Your task to perform on an android device: Open Android settings Image 0: 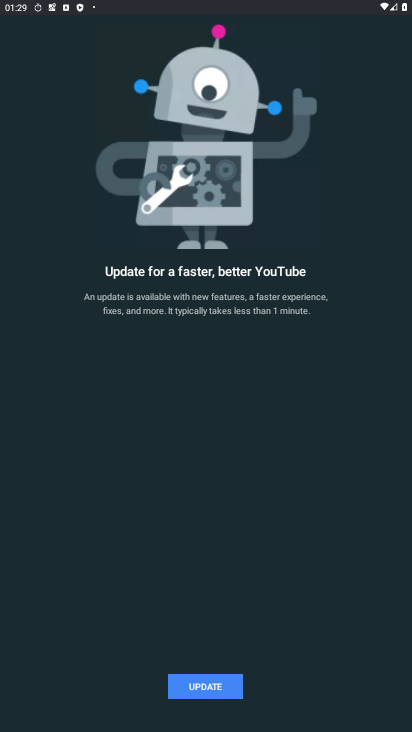
Step 0: press home button
Your task to perform on an android device: Open Android settings Image 1: 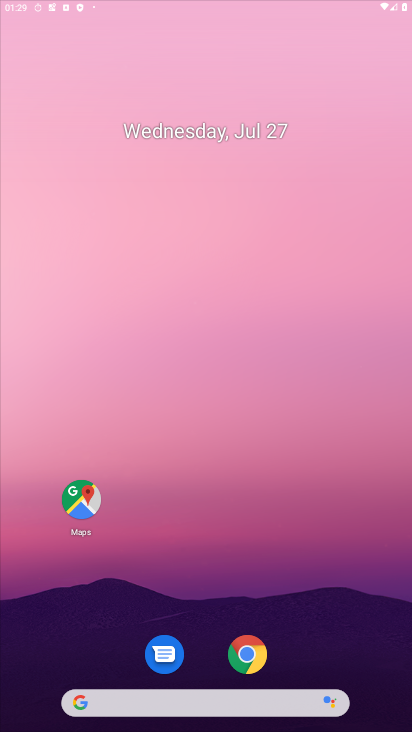
Step 1: drag from (238, 698) to (409, 556)
Your task to perform on an android device: Open Android settings Image 2: 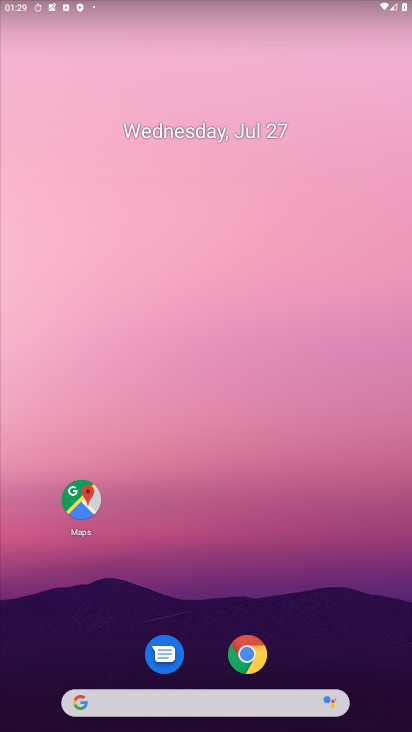
Step 2: drag from (216, 650) to (338, 118)
Your task to perform on an android device: Open Android settings Image 3: 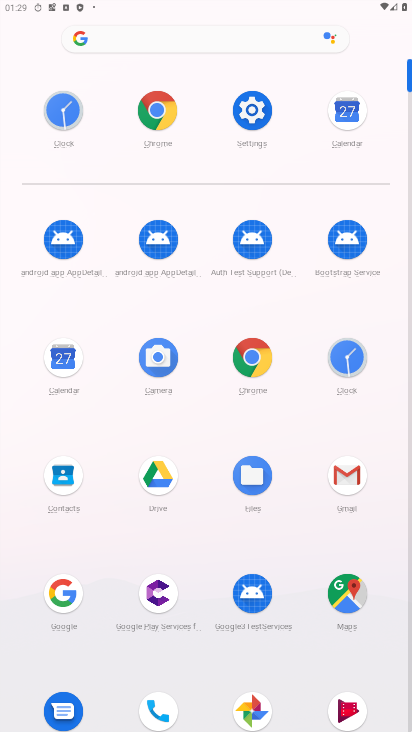
Step 3: click (266, 110)
Your task to perform on an android device: Open Android settings Image 4: 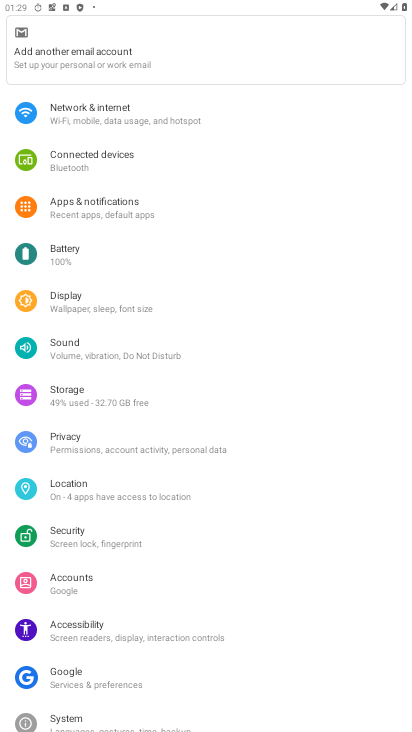
Step 4: drag from (151, 720) to (249, 253)
Your task to perform on an android device: Open Android settings Image 5: 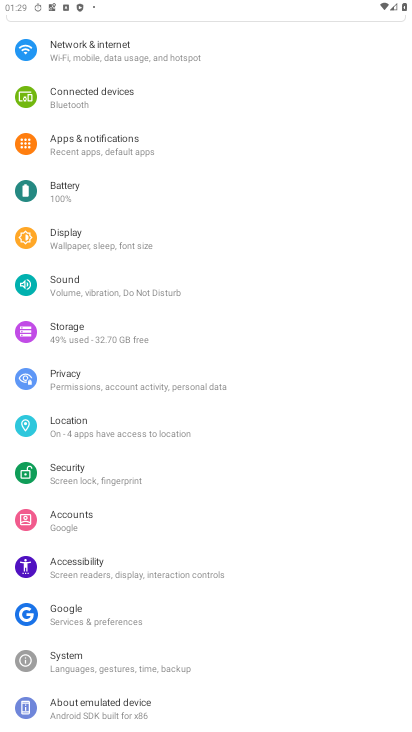
Step 5: click (113, 718)
Your task to perform on an android device: Open Android settings Image 6: 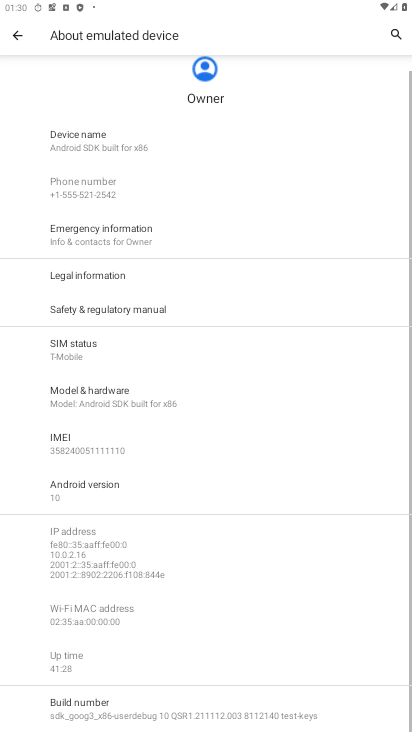
Step 6: click (163, 476)
Your task to perform on an android device: Open Android settings Image 7: 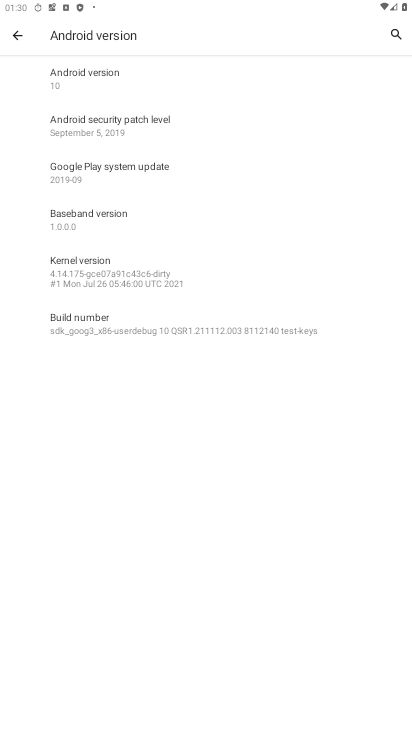
Step 7: task complete